Your task to perform on an android device: Search for pizza restaurants on Maps Image 0: 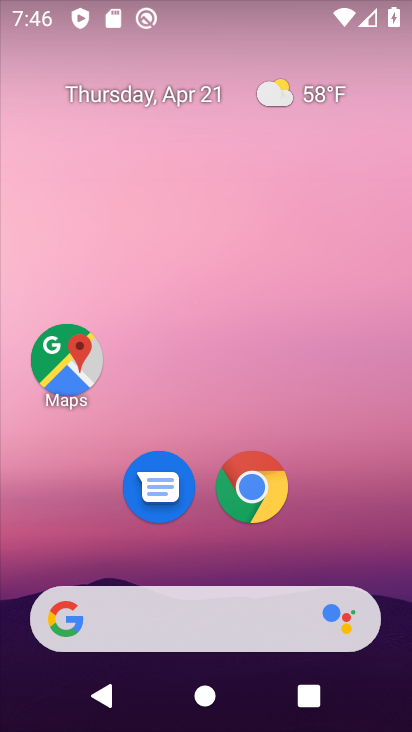
Step 0: drag from (390, 563) to (303, 45)
Your task to perform on an android device: Search for pizza restaurants on Maps Image 1: 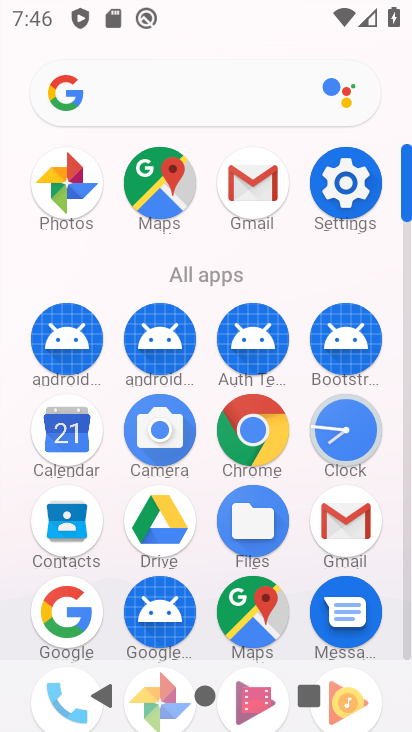
Step 1: click (157, 178)
Your task to perform on an android device: Search for pizza restaurants on Maps Image 2: 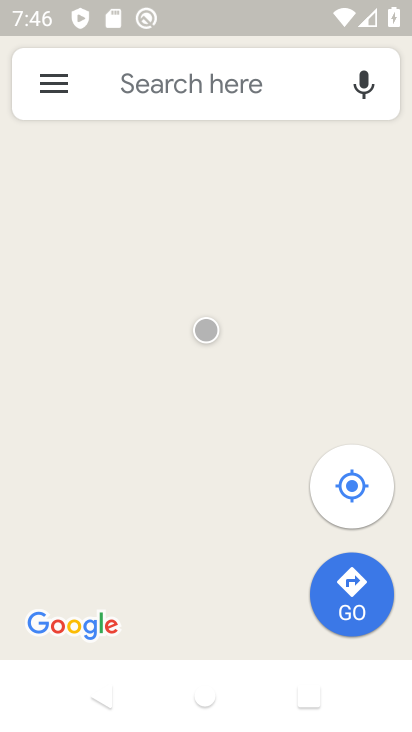
Step 2: click (269, 68)
Your task to perform on an android device: Search for pizza restaurants on Maps Image 3: 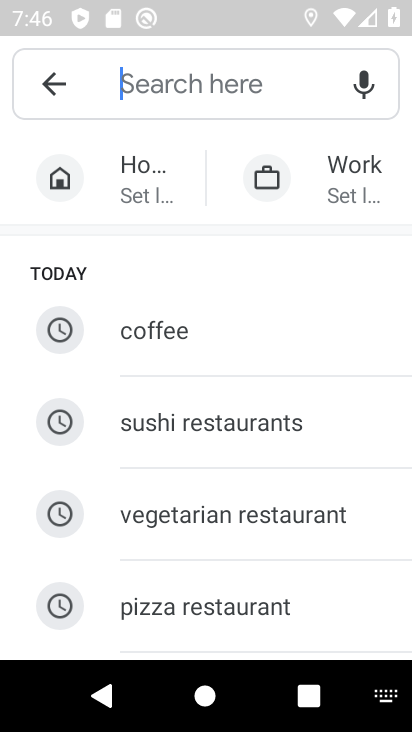
Step 3: drag from (306, 488) to (309, 312)
Your task to perform on an android device: Search for pizza restaurants on Maps Image 4: 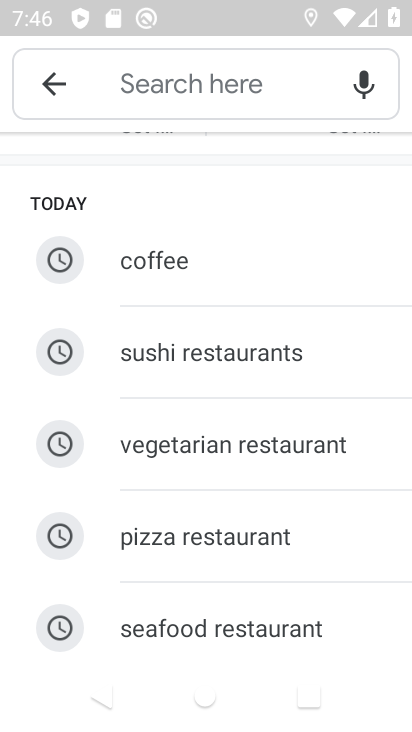
Step 4: click (271, 535)
Your task to perform on an android device: Search for pizza restaurants on Maps Image 5: 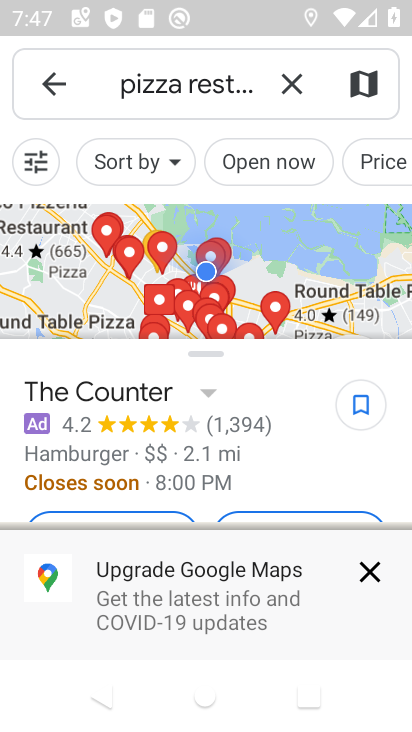
Step 5: task complete